Your task to perform on an android device: Open accessibility settings Image 0: 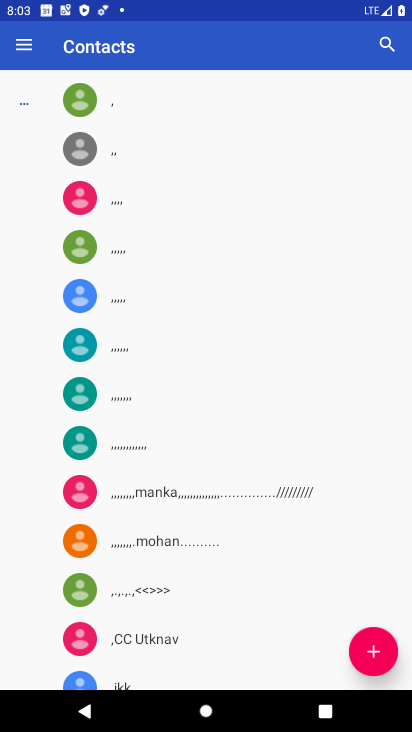
Step 0: press back button
Your task to perform on an android device: Open accessibility settings Image 1: 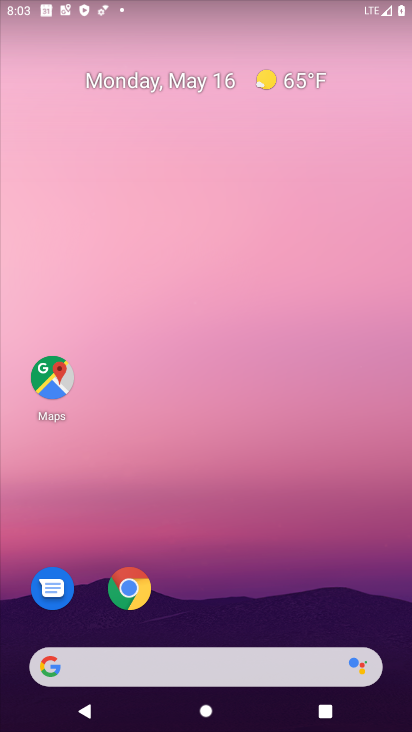
Step 1: drag from (261, 570) to (235, 57)
Your task to perform on an android device: Open accessibility settings Image 2: 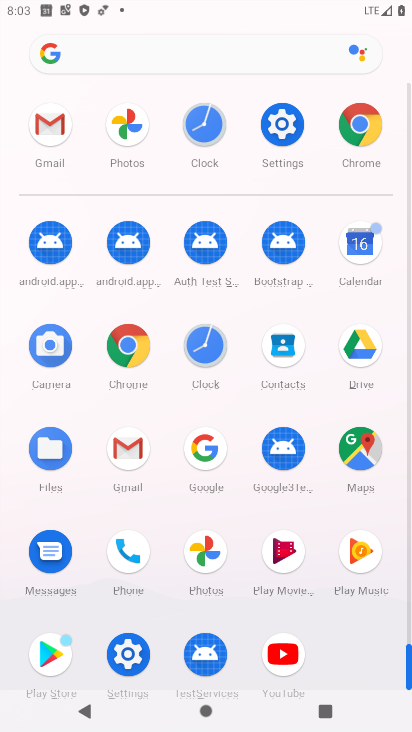
Step 2: drag from (9, 531) to (11, 297)
Your task to perform on an android device: Open accessibility settings Image 3: 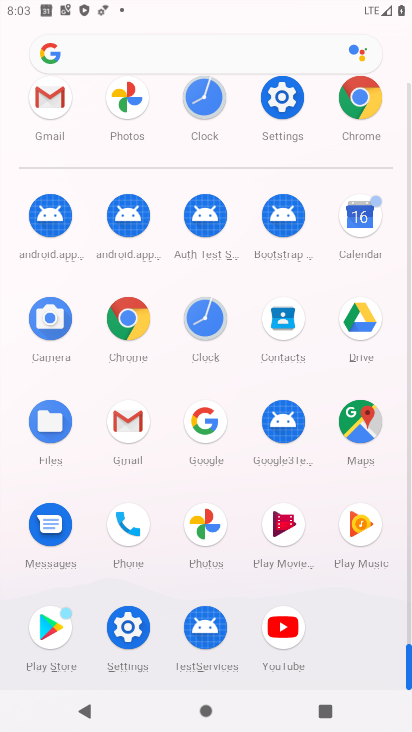
Step 3: click (127, 628)
Your task to perform on an android device: Open accessibility settings Image 4: 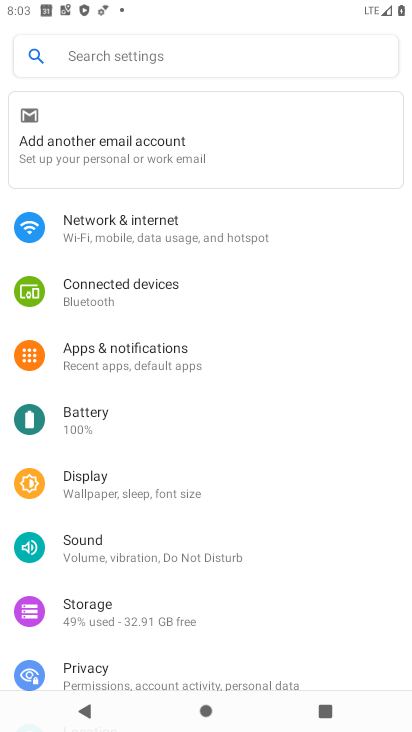
Step 4: drag from (289, 606) to (301, 210)
Your task to perform on an android device: Open accessibility settings Image 5: 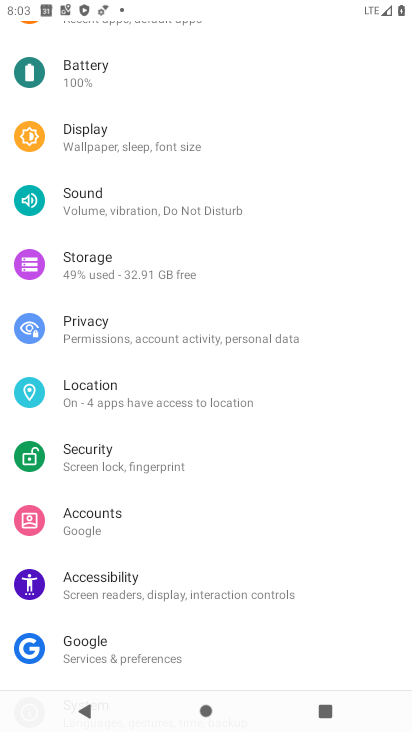
Step 5: click (109, 571)
Your task to perform on an android device: Open accessibility settings Image 6: 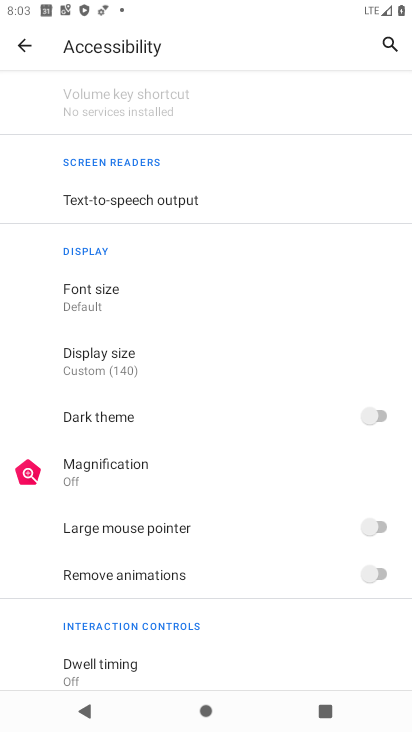
Step 6: task complete